Your task to perform on an android device: open wifi settings Image 0: 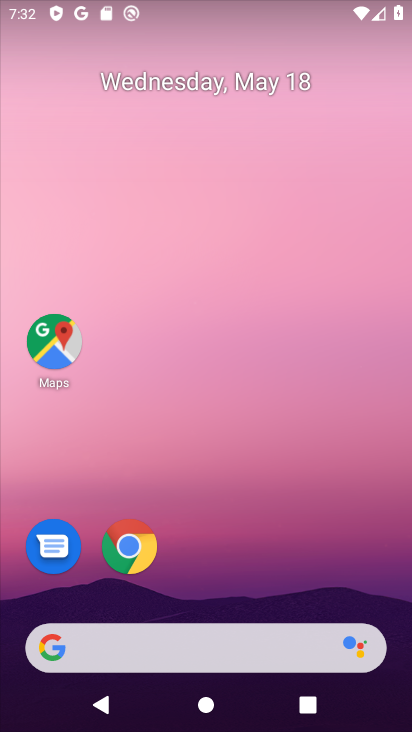
Step 0: drag from (218, 545) to (260, 120)
Your task to perform on an android device: open wifi settings Image 1: 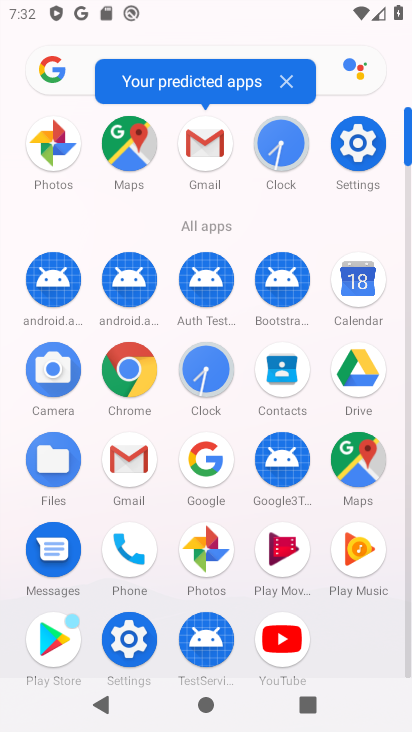
Step 1: click (364, 155)
Your task to perform on an android device: open wifi settings Image 2: 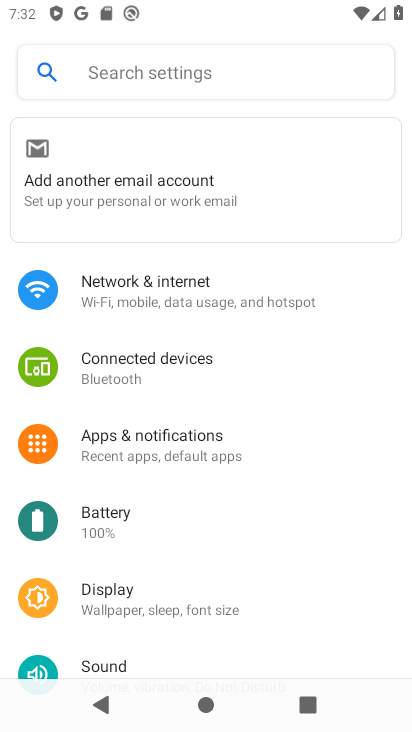
Step 2: click (145, 283)
Your task to perform on an android device: open wifi settings Image 3: 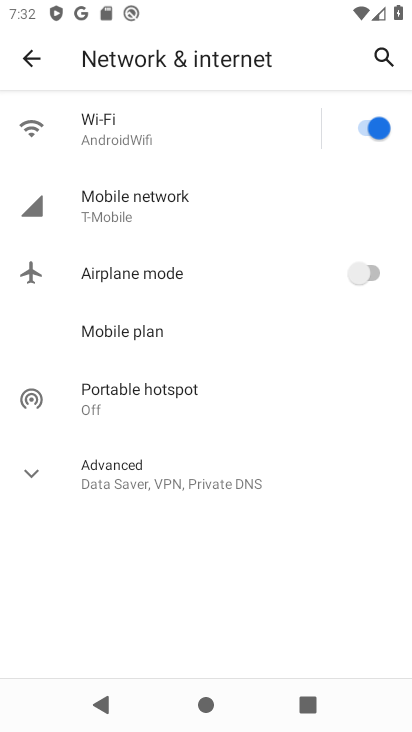
Step 3: click (142, 123)
Your task to perform on an android device: open wifi settings Image 4: 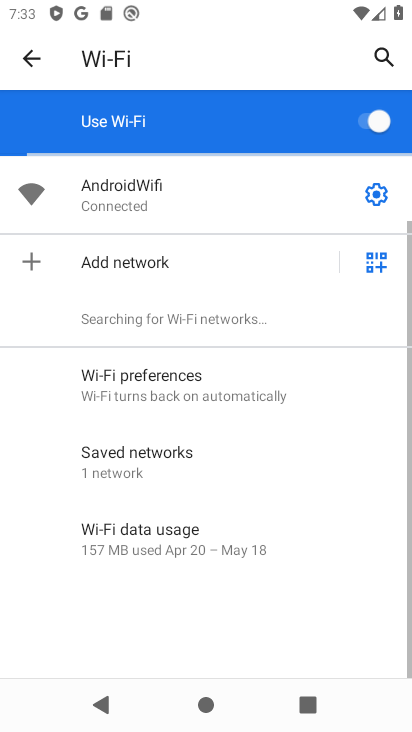
Step 4: task complete